Your task to perform on an android device: turn off improve location accuracy Image 0: 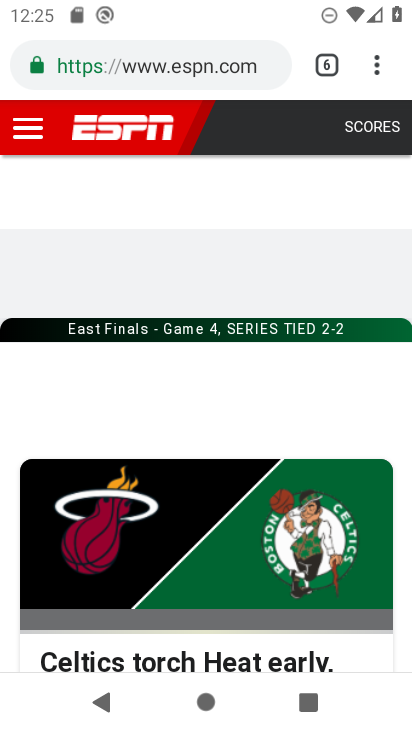
Step 0: press home button
Your task to perform on an android device: turn off improve location accuracy Image 1: 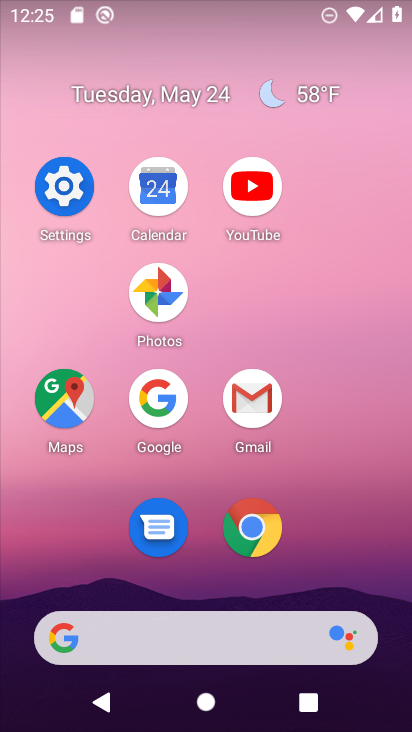
Step 1: click (70, 193)
Your task to perform on an android device: turn off improve location accuracy Image 2: 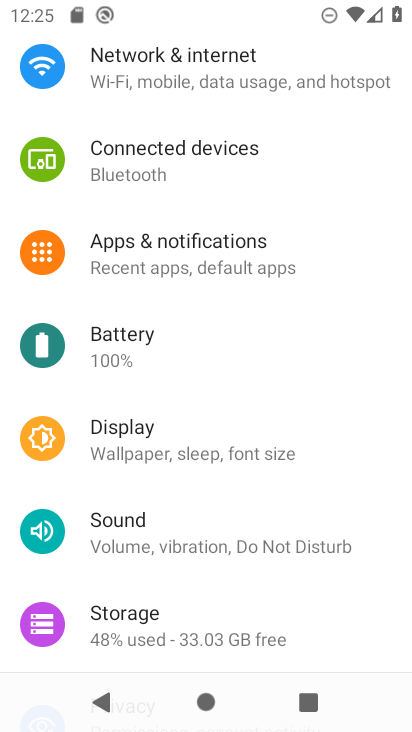
Step 2: drag from (218, 588) to (190, 247)
Your task to perform on an android device: turn off improve location accuracy Image 3: 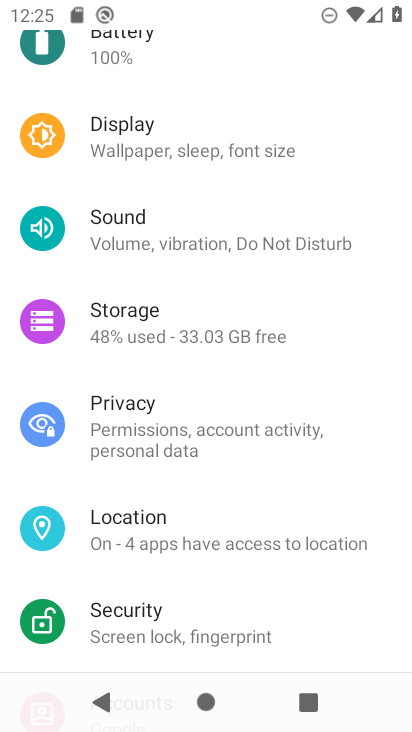
Step 3: click (252, 511)
Your task to perform on an android device: turn off improve location accuracy Image 4: 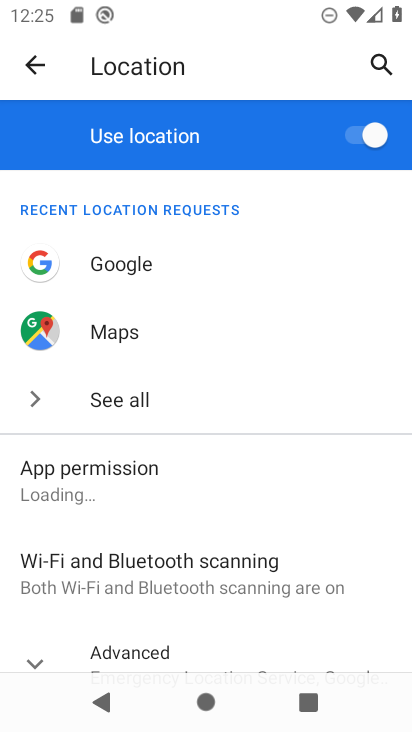
Step 4: click (202, 632)
Your task to perform on an android device: turn off improve location accuracy Image 5: 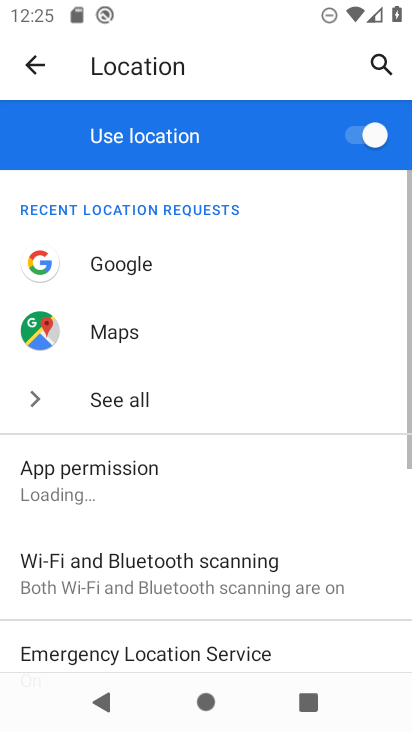
Step 5: drag from (177, 608) to (195, 342)
Your task to perform on an android device: turn off improve location accuracy Image 6: 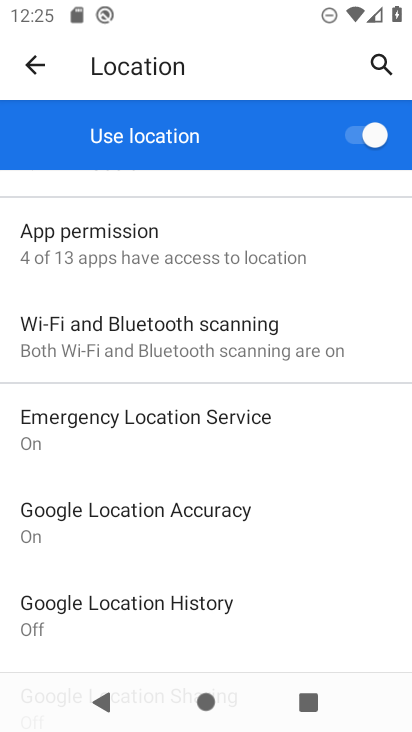
Step 6: click (222, 502)
Your task to perform on an android device: turn off improve location accuracy Image 7: 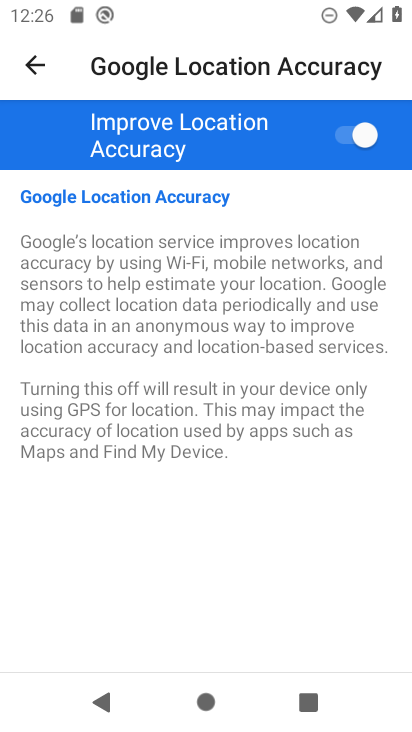
Step 7: click (358, 140)
Your task to perform on an android device: turn off improve location accuracy Image 8: 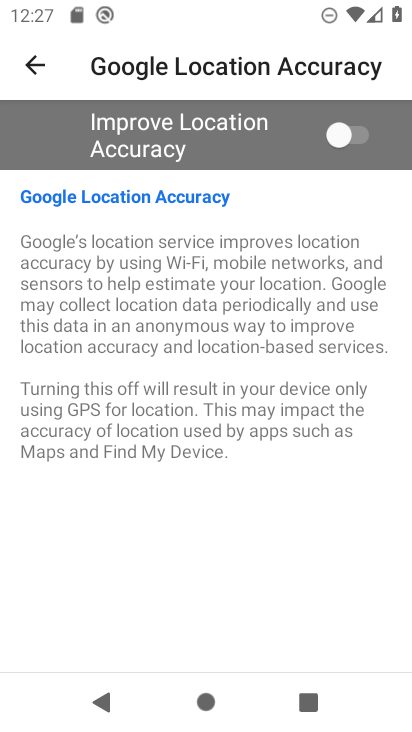
Step 8: task complete